Your task to perform on an android device: toggle show notifications on the lock screen Image 0: 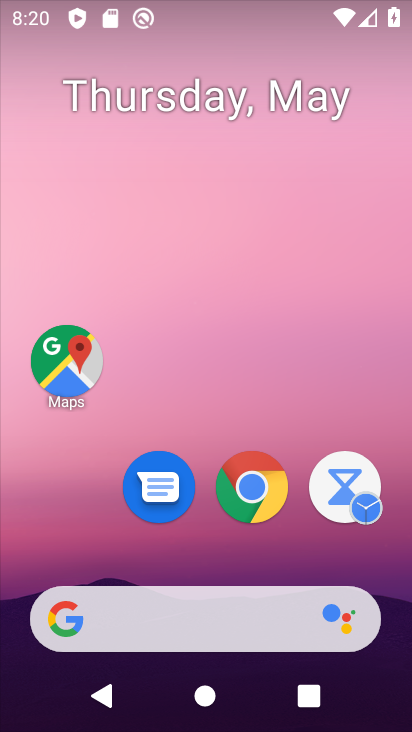
Step 0: drag from (364, 560) to (381, 162)
Your task to perform on an android device: toggle show notifications on the lock screen Image 1: 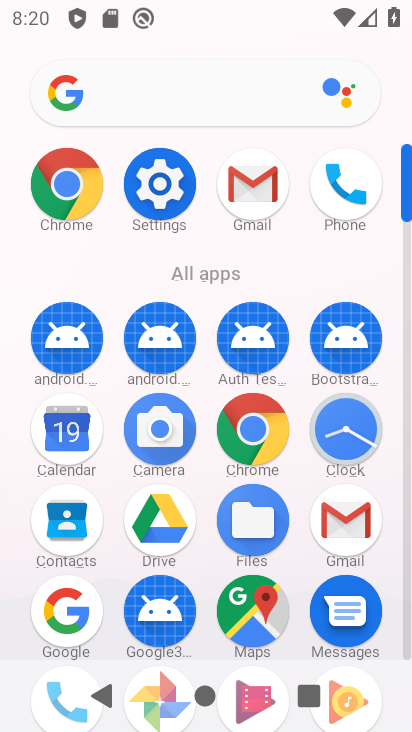
Step 1: click (142, 191)
Your task to perform on an android device: toggle show notifications on the lock screen Image 2: 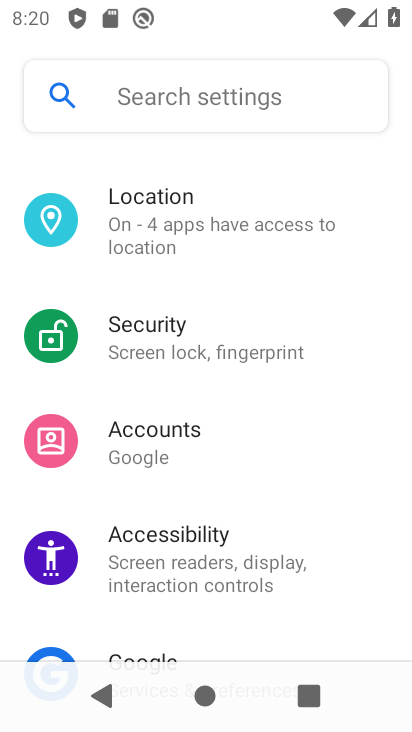
Step 2: drag from (379, 545) to (366, 391)
Your task to perform on an android device: toggle show notifications on the lock screen Image 3: 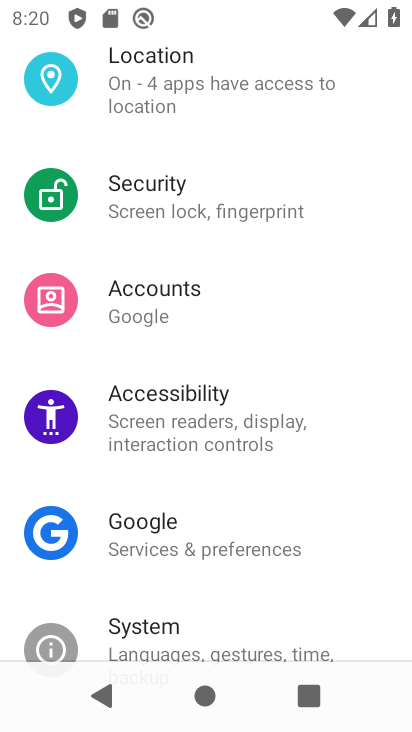
Step 3: drag from (351, 588) to (339, 414)
Your task to perform on an android device: toggle show notifications on the lock screen Image 4: 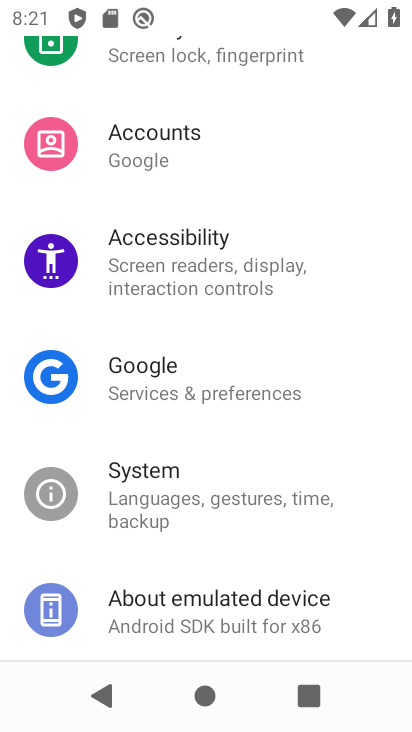
Step 4: drag from (339, 580) to (345, 448)
Your task to perform on an android device: toggle show notifications on the lock screen Image 5: 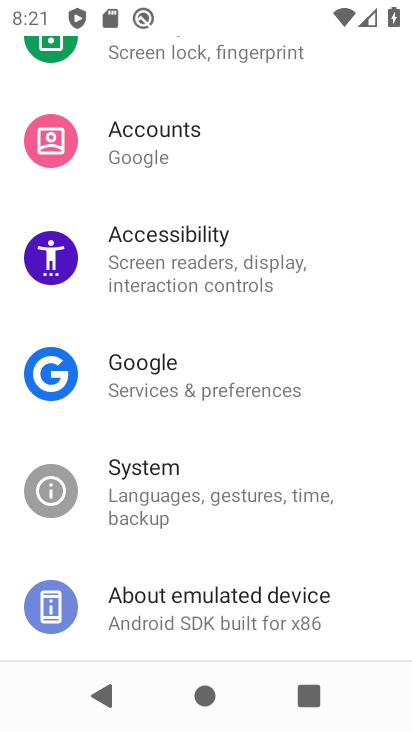
Step 5: drag from (336, 282) to (332, 482)
Your task to perform on an android device: toggle show notifications on the lock screen Image 6: 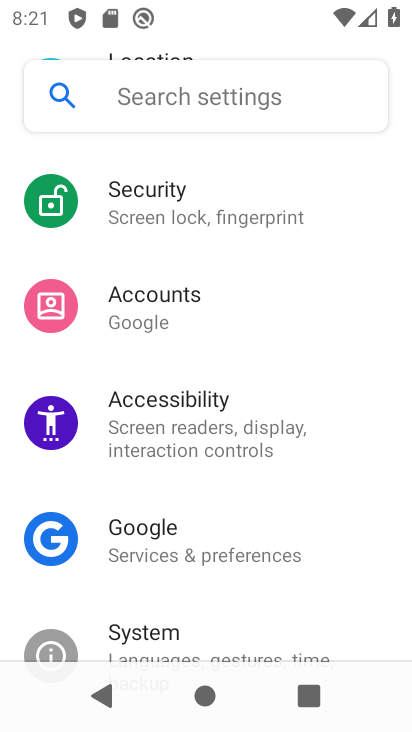
Step 6: drag from (331, 311) to (329, 509)
Your task to perform on an android device: toggle show notifications on the lock screen Image 7: 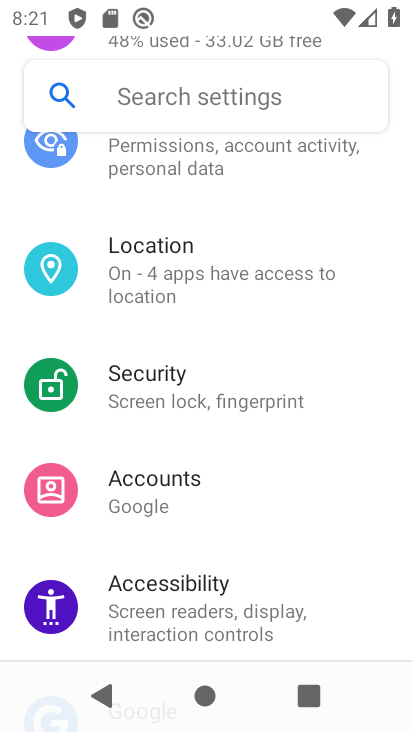
Step 7: drag from (335, 377) to (331, 561)
Your task to perform on an android device: toggle show notifications on the lock screen Image 8: 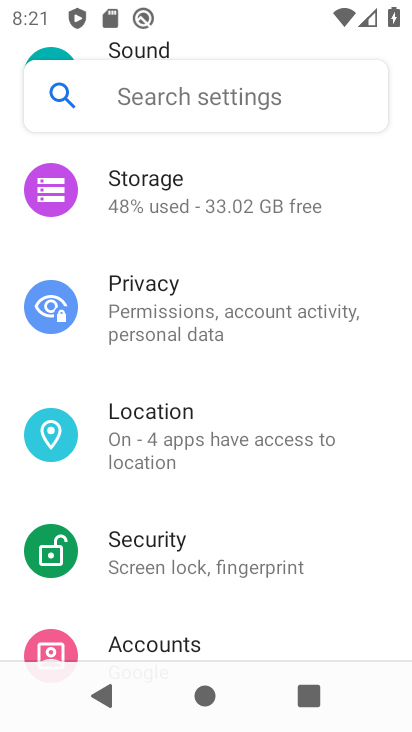
Step 8: drag from (361, 371) to (365, 529)
Your task to perform on an android device: toggle show notifications on the lock screen Image 9: 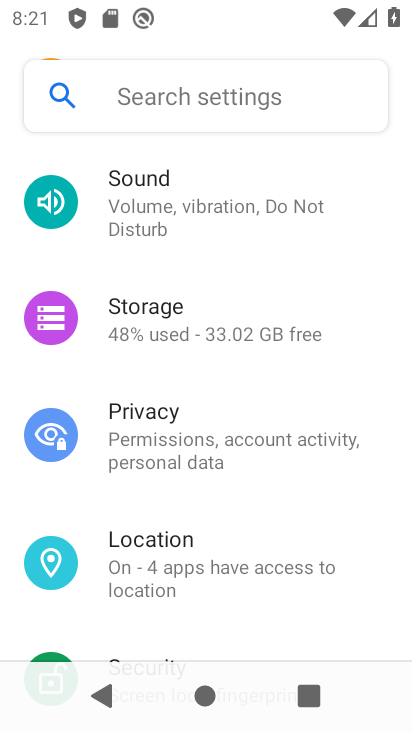
Step 9: drag from (371, 333) to (373, 467)
Your task to perform on an android device: toggle show notifications on the lock screen Image 10: 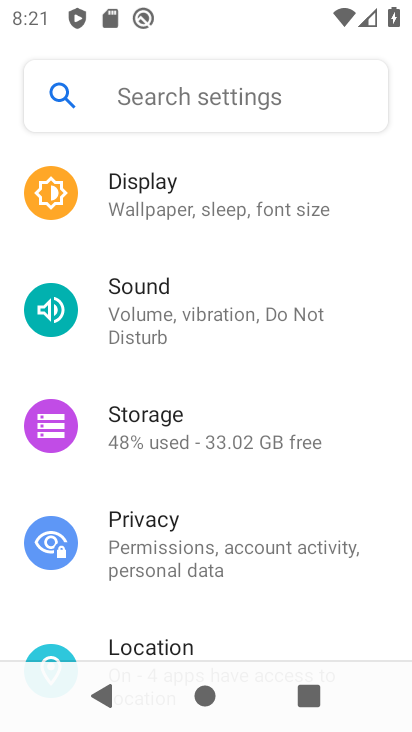
Step 10: drag from (380, 346) to (363, 447)
Your task to perform on an android device: toggle show notifications on the lock screen Image 11: 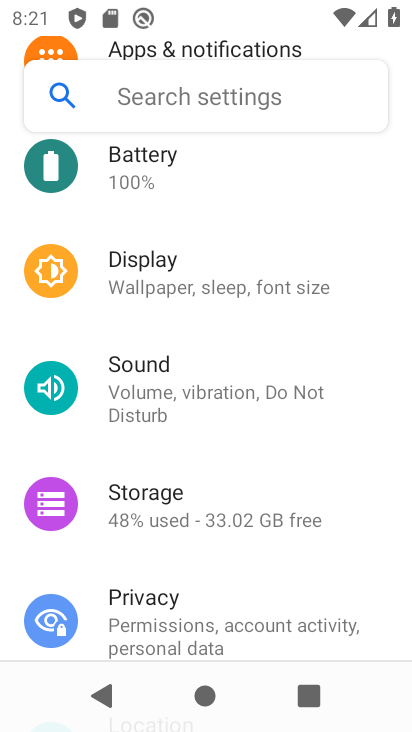
Step 11: drag from (364, 340) to (351, 465)
Your task to perform on an android device: toggle show notifications on the lock screen Image 12: 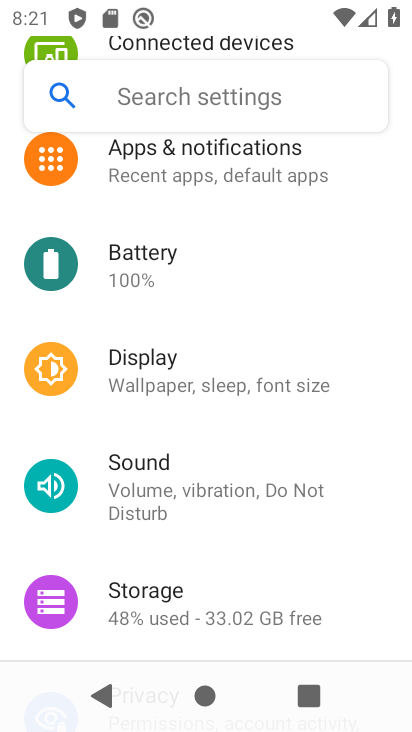
Step 12: drag from (369, 336) to (348, 482)
Your task to perform on an android device: toggle show notifications on the lock screen Image 13: 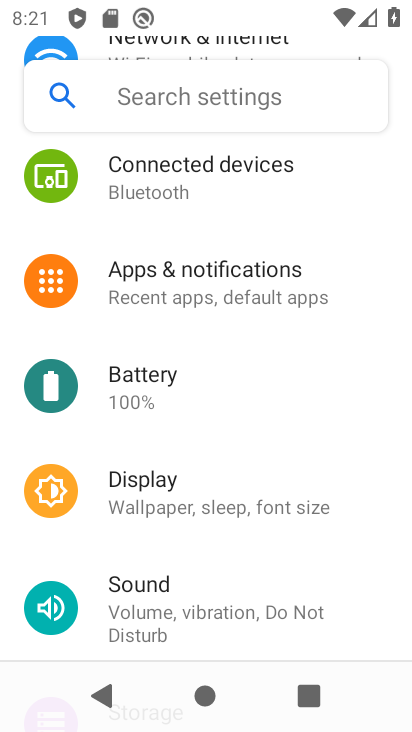
Step 13: drag from (355, 338) to (343, 441)
Your task to perform on an android device: toggle show notifications on the lock screen Image 14: 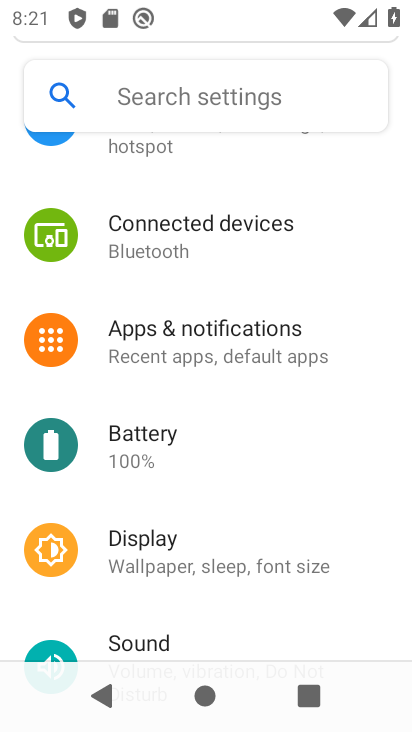
Step 14: drag from (354, 298) to (352, 436)
Your task to perform on an android device: toggle show notifications on the lock screen Image 15: 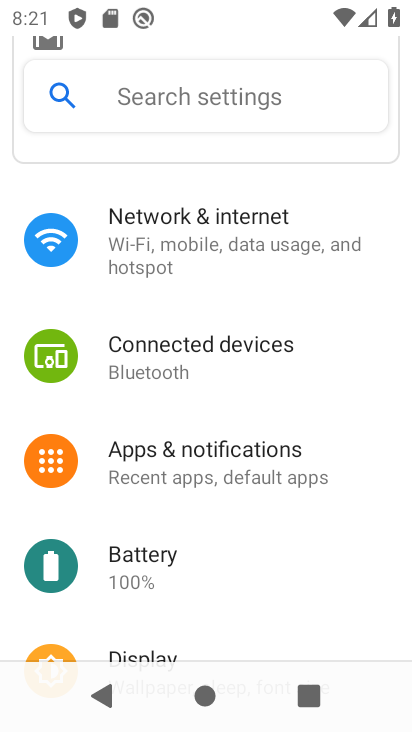
Step 15: click (292, 465)
Your task to perform on an android device: toggle show notifications on the lock screen Image 16: 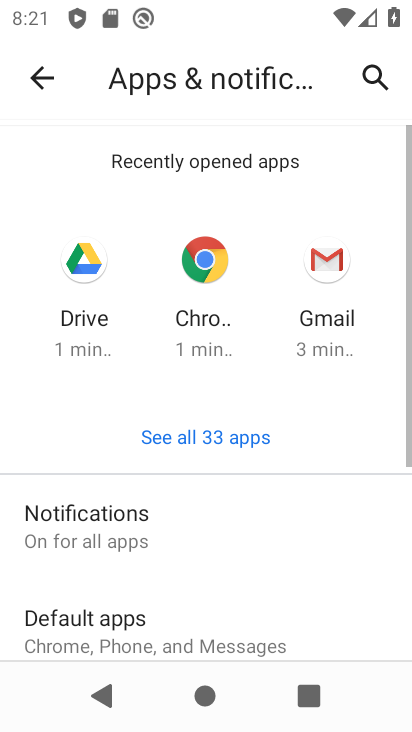
Step 16: click (162, 559)
Your task to perform on an android device: toggle show notifications on the lock screen Image 17: 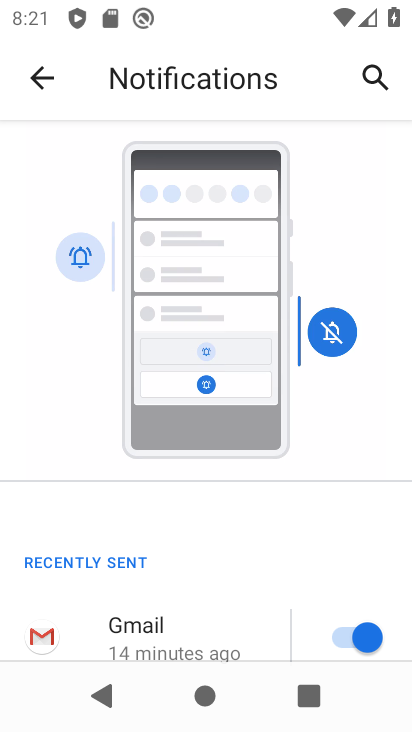
Step 17: drag from (256, 498) to (261, 387)
Your task to perform on an android device: toggle show notifications on the lock screen Image 18: 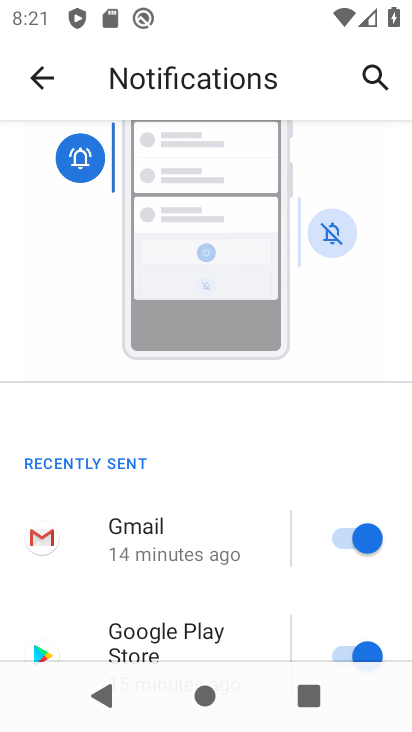
Step 18: drag from (237, 527) to (240, 402)
Your task to perform on an android device: toggle show notifications on the lock screen Image 19: 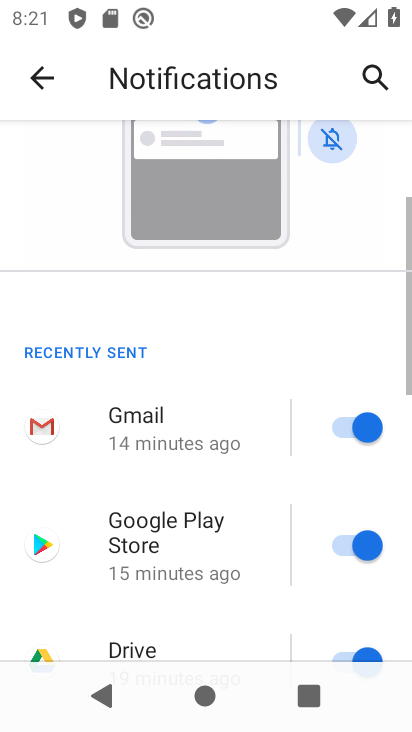
Step 19: drag from (240, 587) to (243, 452)
Your task to perform on an android device: toggle show notifications on the lock screen Image 20: 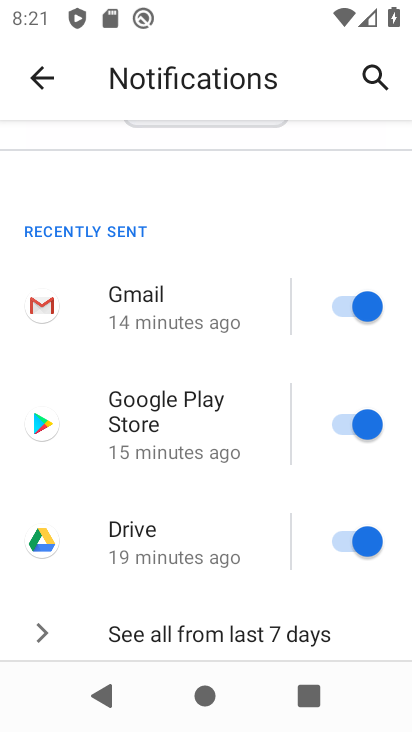
Step 20: drag from (225, 603) to (234, 467)
Your task to perform on an android device: toggle show notifications on the lock screen Image 21: 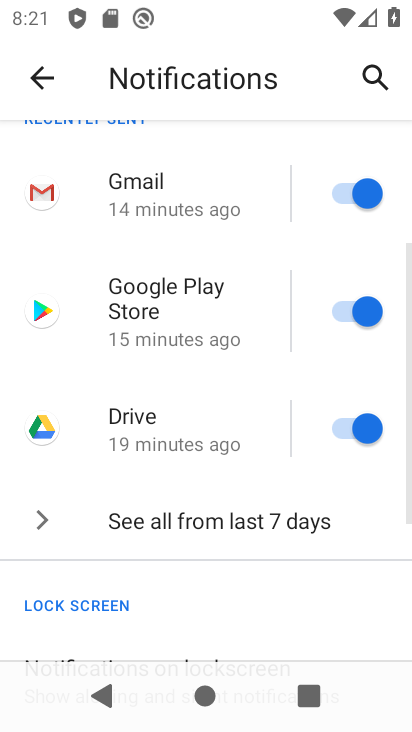
Step 21: drag from (212, 590) to (237, 433)
Your task to perform on an android device: toggle show notifications on the lock screen Image 22: 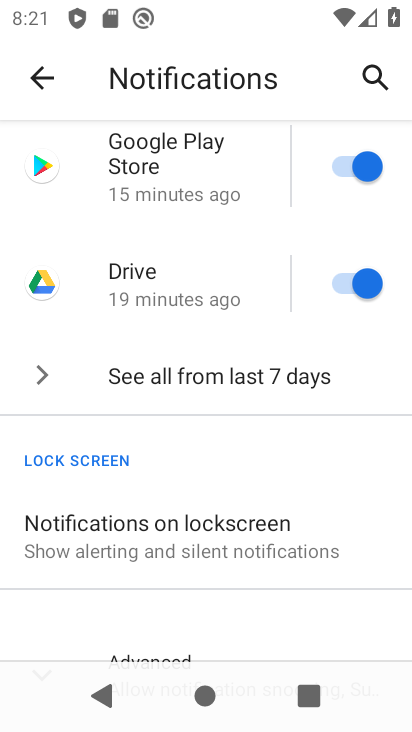
Step 22: click (234, 535)
Your task to perform on an android device: toggle show notifications on the lock screen Image 23: 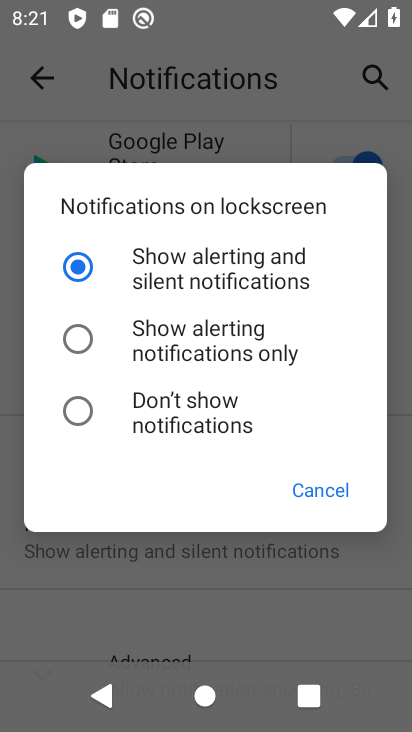
Step 23: click (123, 339)
Your task to perform on an android device: toggle show notifications on the lock screen Image 24: 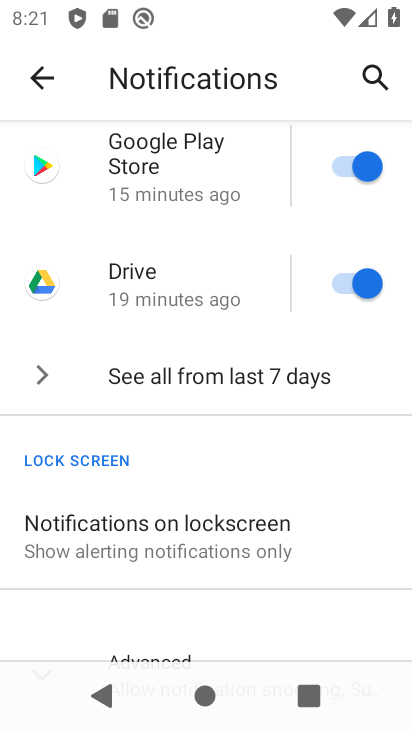
Step 24: task complete